Your task to perform on an android device: see creations saved in the google photos Image 0: 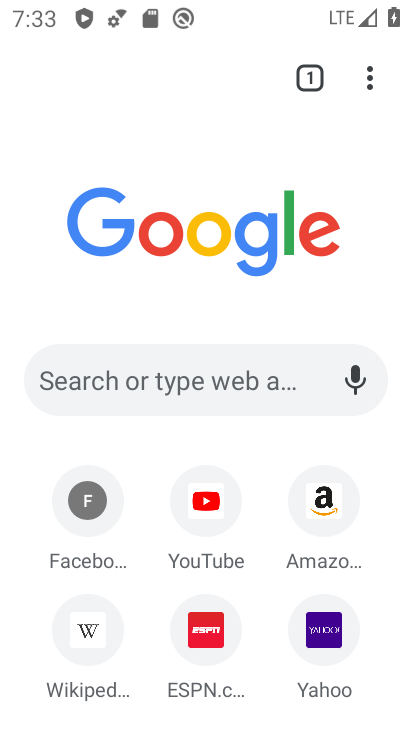
Step 0: press home button
Your task to perform on an android device: see creations saved in the google photos Image 1: 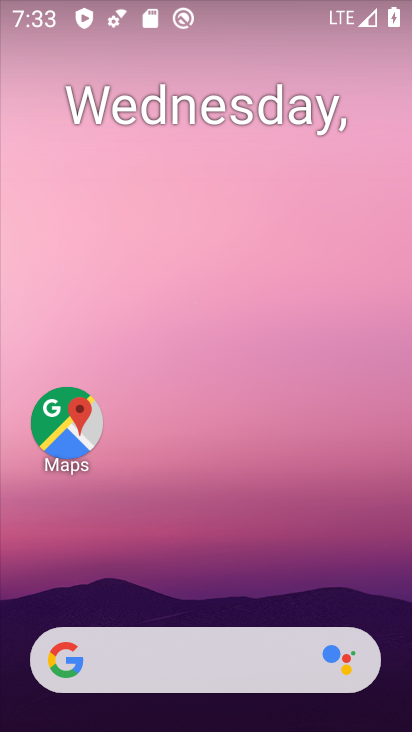
Step 1: drag from (213, 613) to (110, 222)
Your task to perform on an android device: see creations saved in the google photos Image 2: 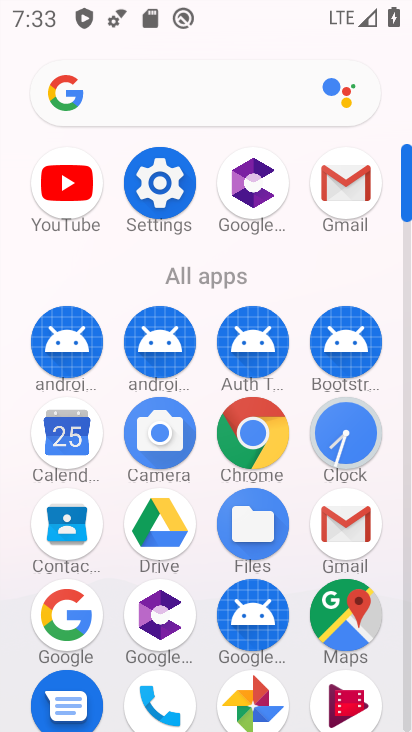
Step 2: click (238, 699)
Your task to perform on an android device: see creations saved in the google photos Image 3: 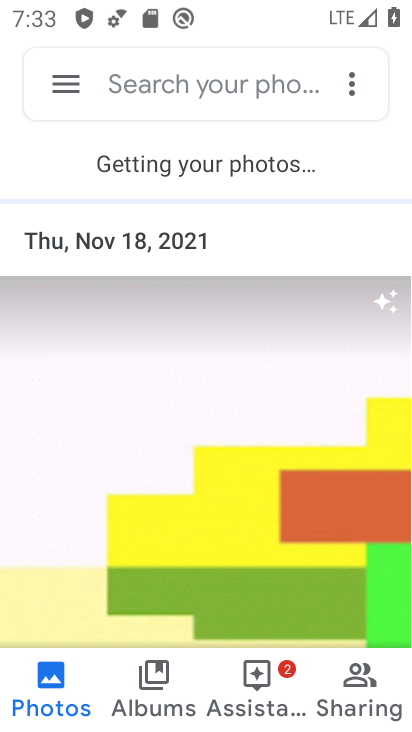
Step 3: click (190, 82)
Your task to perform on an android device: see creations saved in the google photos Image 4: 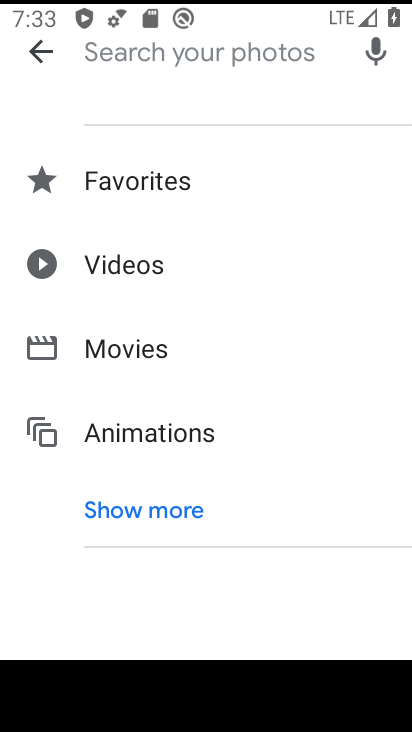
Step 4: click (128, 521)
Your task to perform on an android device: see creations saved in the google photos Image 5: 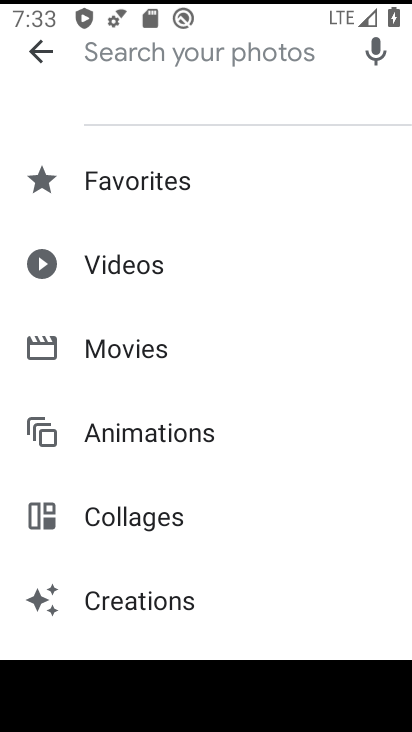
Step 5: click (152, 607)
Your task to perform on an android device: see creations saved in the google photos Image 6: 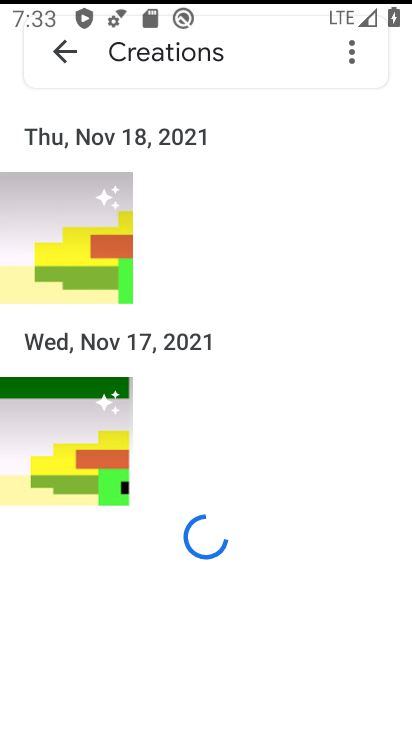
Step 6: task complete